Your task to perform on an android device: open chrome privacy settings Image 0: 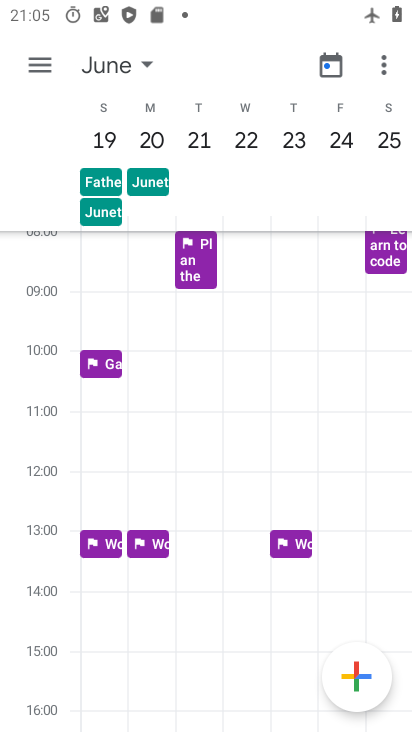
Step 0: press back button
Your task to perform on an android device: open chrome privacy settings Image 1: 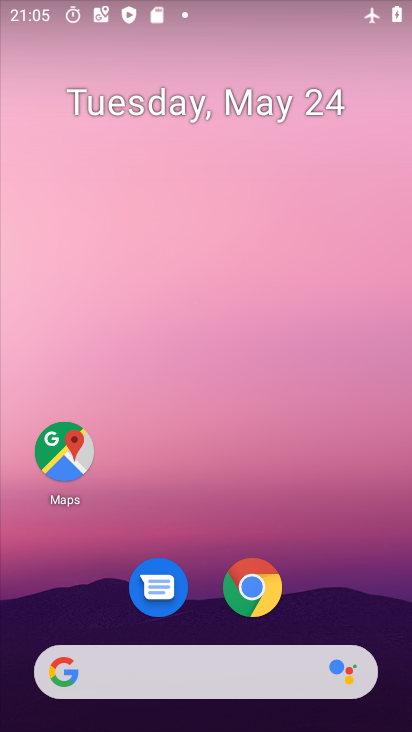
Step 1: drag from (379, 505) to (264, 8)
Your task to perform on an android device: open chrome privacy settings Image 2: 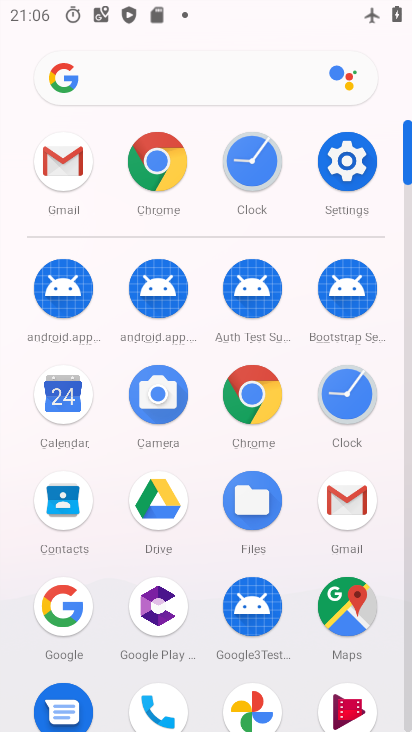
Step 2: click (346, 158)
Your task to perform on an android device: open chrome privacy settings Image 3: 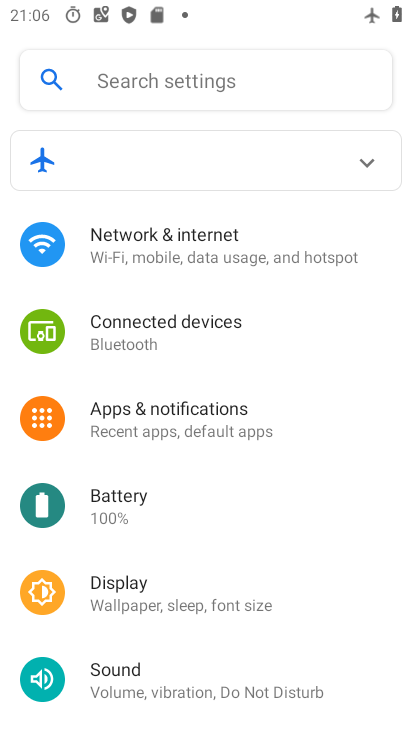
Step 3: press back button
Your task to perform on an android device: open chrome privacy settings Image 4: 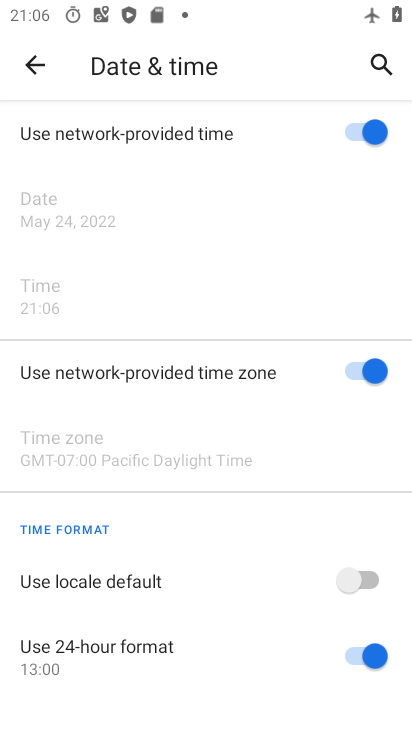
Step 4: press home button
Your task to perform on an android device: open chrome privacy settings Image 5: 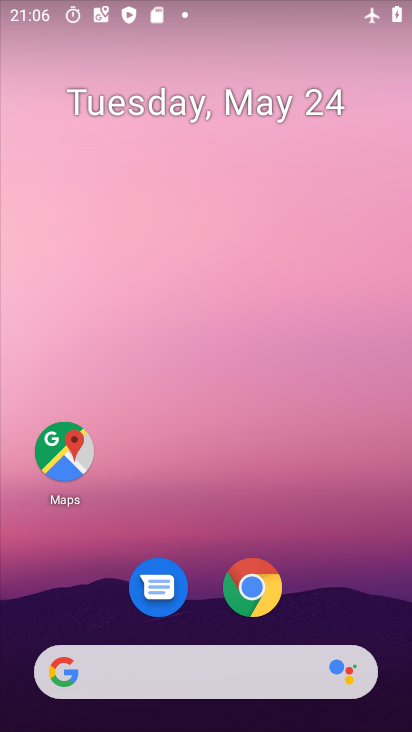
Step 5: drag from (329, 500) to (269, 30)
Your task to perform on an android device: open chrome privacy settings Image 6: 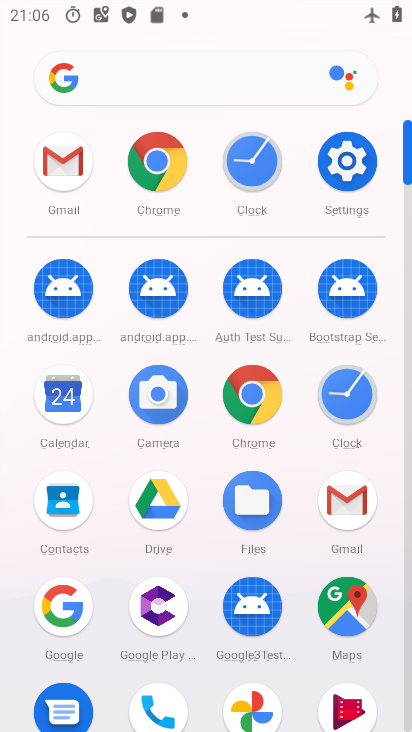
Step 6: click (152, 158)
Your task to perform on an android device: open chrome privacy settings Image 7: 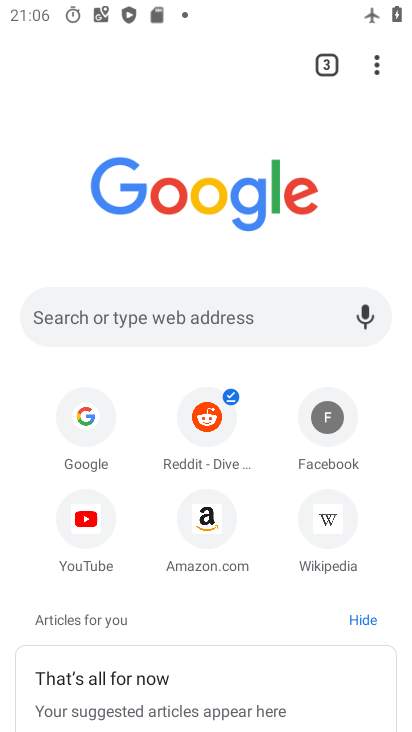
Step 7: drag from (373, 71) to (142, 544)
Your task to perform on an android device: open chrome privacy settings Image 8: 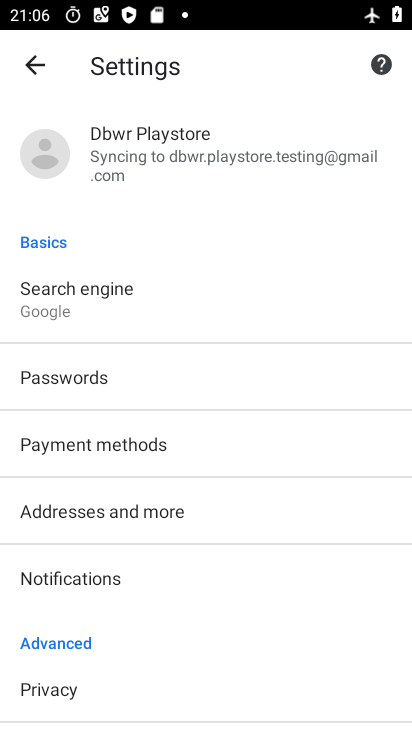
Step 8: click (80, 695)
Your task to perform on an android device: open chrome privacy settings Image 9: 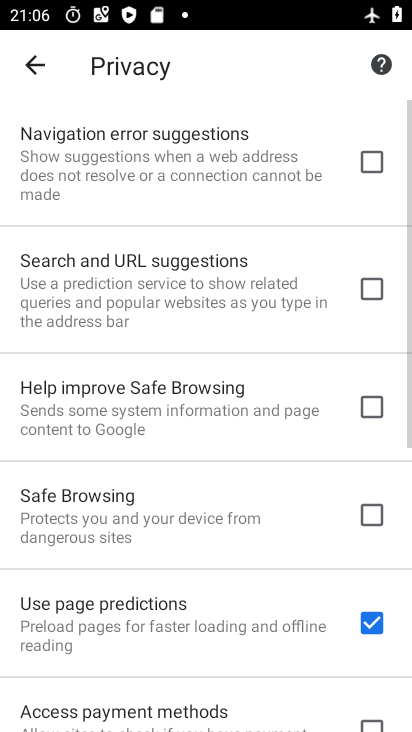
Step 9: task complete